Your task to perform on an android device: open chrome and create a bookmark for the current page Image 0: 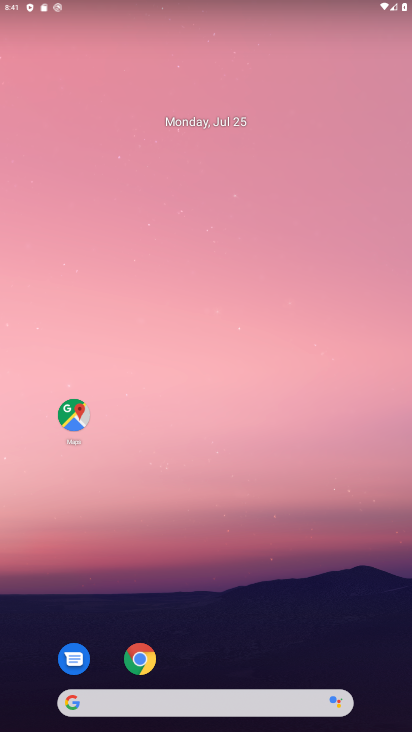
Step 0: click (138, 664)
Your task to perform on an android device: open chrome and create a bookmark for the current page Image 1: 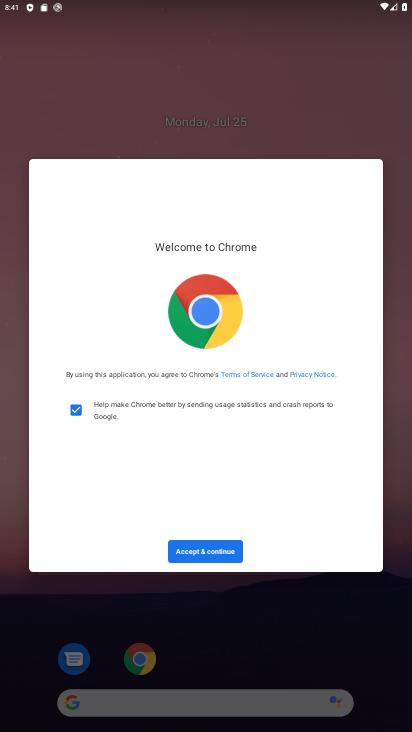
Step 1: click (215, 552)
Your task to perform on an android device: open chrome and create a bookmark for the current page Image 2: 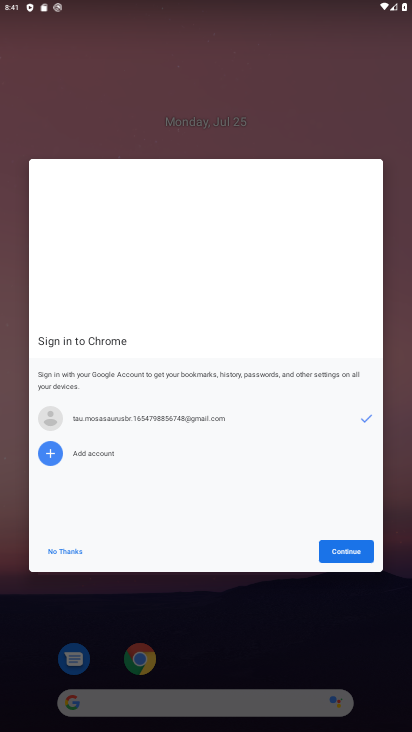
Step 2: click (347, 551)
Your task to perform on an android device: open chrome and create a bookmark for the current page Image 3: 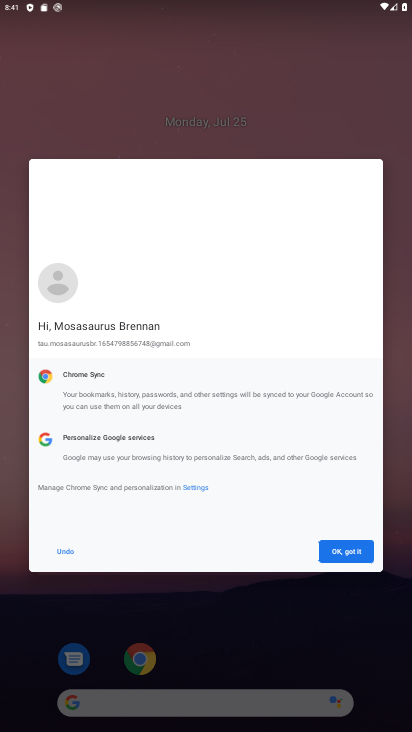
Step 3: click (347, 551)
Your task to perform on an android device: open chrome and create a bookmark for the current page Image 4: 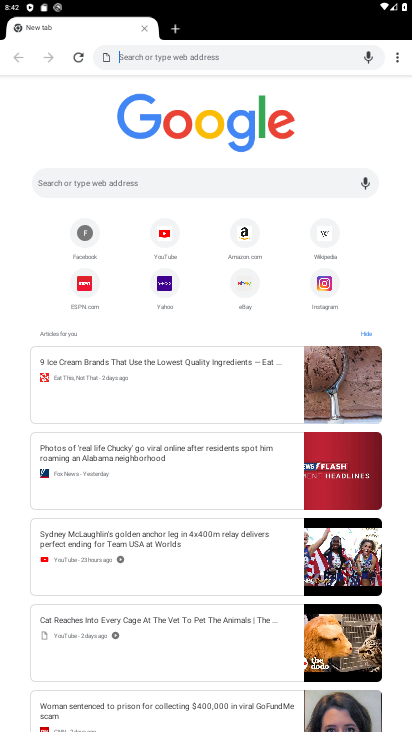
Step 4: drag from (144, 608) to (200, 222)
Your task to perform on an android device: open chrome and create a bookmark for the current page Image 5: 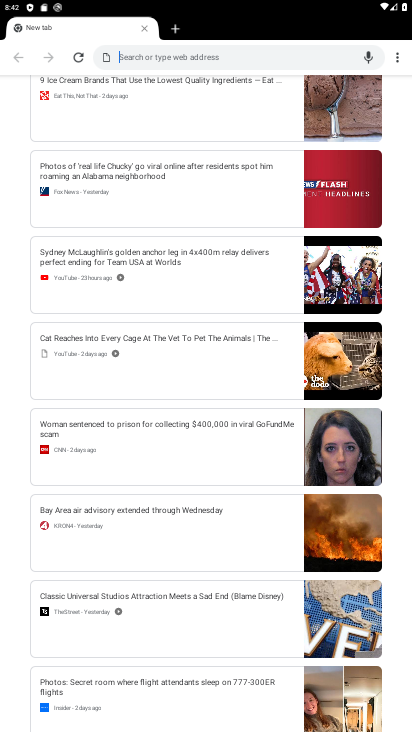
Step 5: click (202, 456)
Your task to perform on an android device: open chrome and create a bookmark for the current page Image 6: 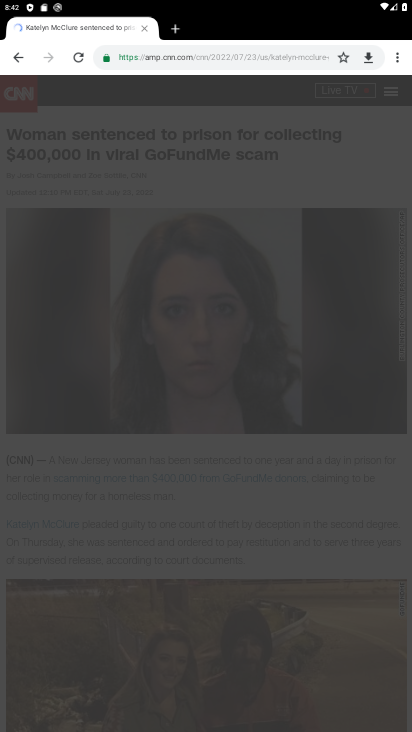
Step 6: click (341, 60)
Your task to perform on an android device: open chrome and create a bookmark for the current page Image 7: 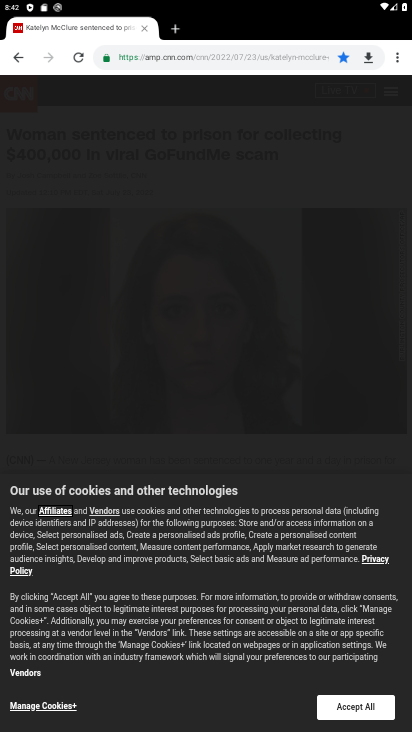
Step 7: task complete